Your task to perform on an android device: see sites visited before in the chrome app Image 0: 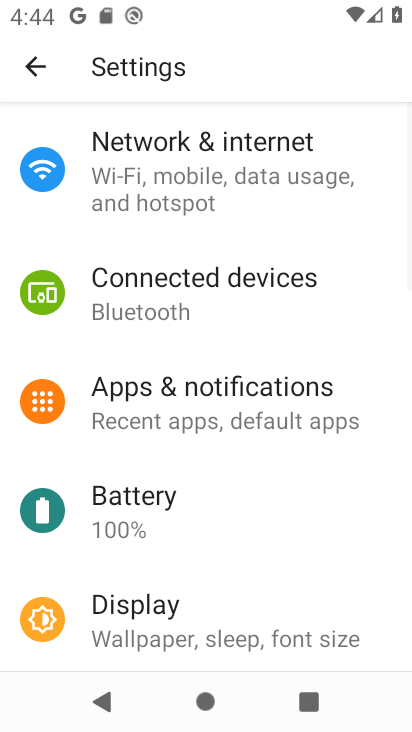
Step 0: press home button
Your task to perform on an android device: see sites visited before in the chrome app Image 1: 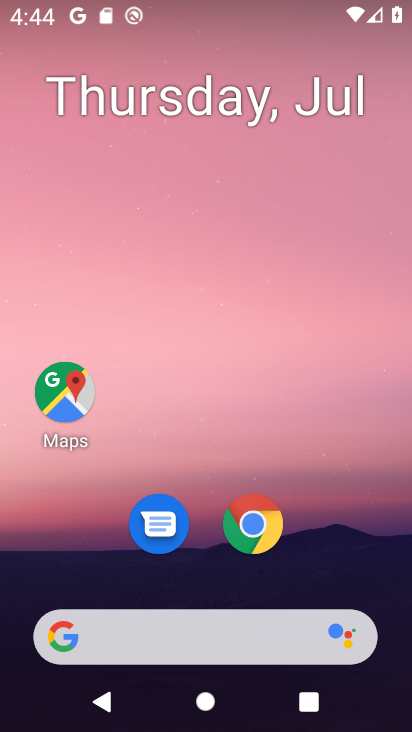
Step 1: click (235, 545)
Your task to perform on an android device: see sites visited before in the chrome app Image 2: 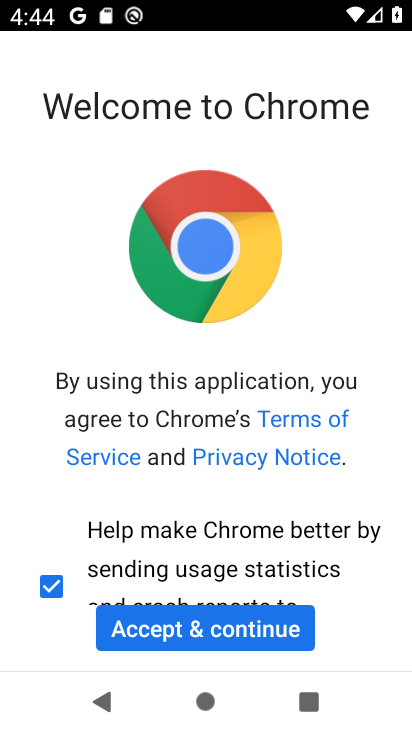
Step 2: click (192, 631)
Your task to perform on an android device: see sites visited before in the chrome app Image 3: 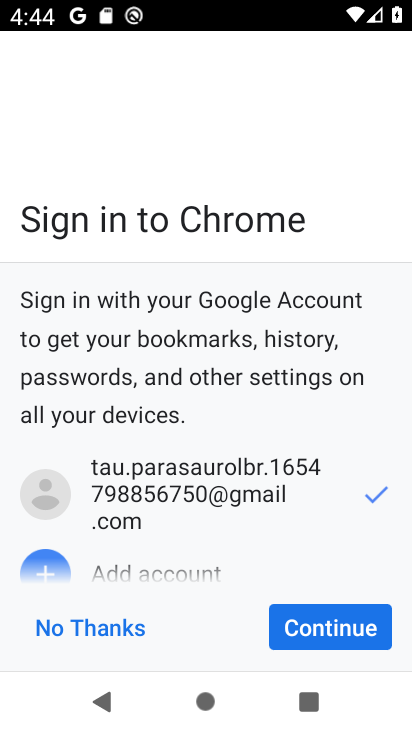
Step 3: click (297, 636)
Your task to perform on an android device: see sites visited before in the chrome app Image 4: 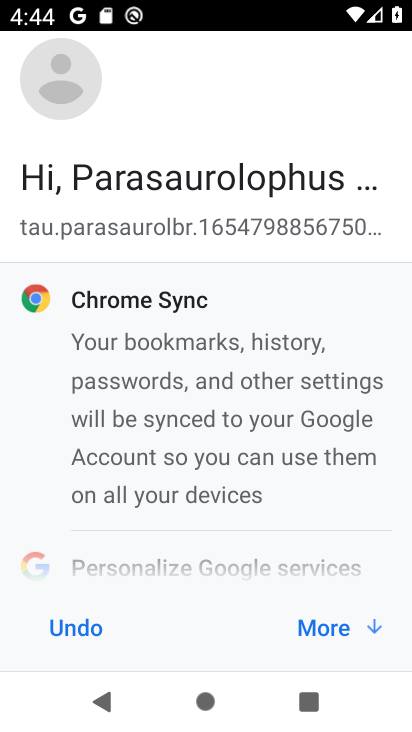
Step 4: click (312, 626)
Your task to perform on an android device: see sites visited before in the chrome app Image 5: 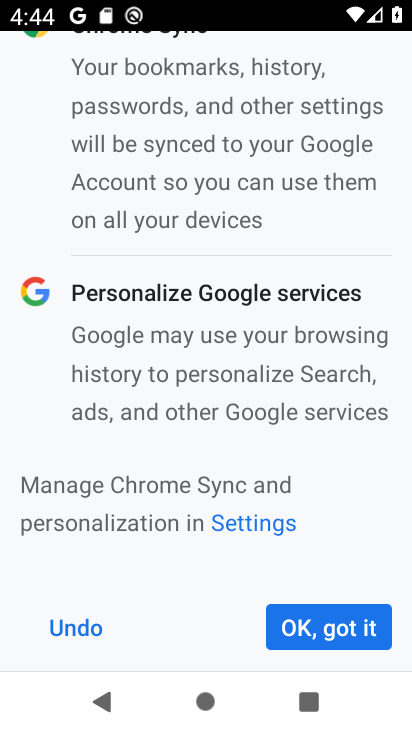
Step 5: click (312, 626)
Your task to perform on an android device: see sites visited before in the chrome app Image 6: 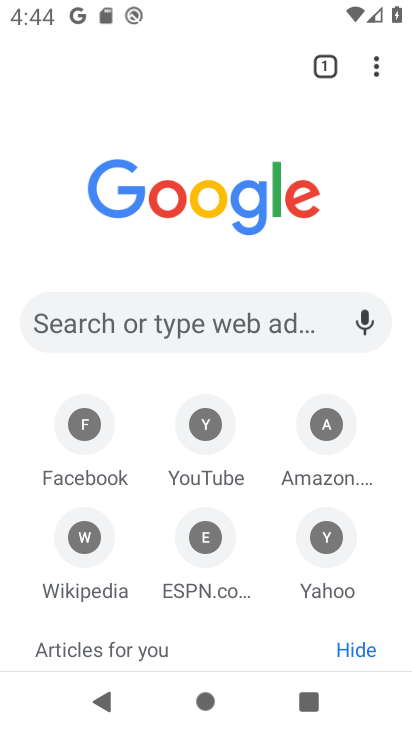
Step 6: task complete